Your task to perform on an android device: change the clock style Image 0: 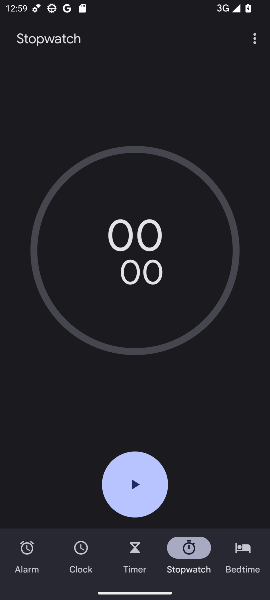
Step 0: press home button
Your task to perform on an android device: change the clock style Image 1: 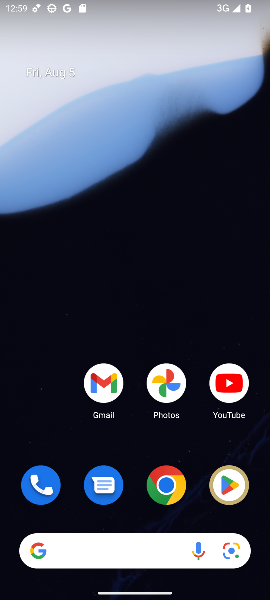
Step 1: drag from (40, 435) to (65, 23)
Your task to perform on an android device: change the clock style Image 2: 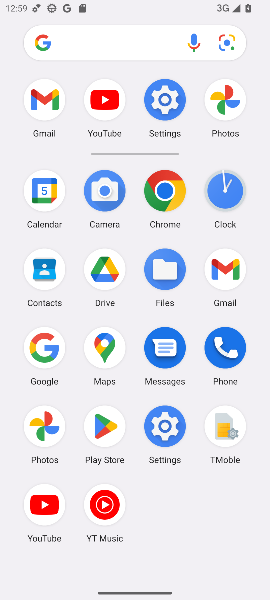
Step 2: click (228, 196)
Your task to perform on an android device: change the clock style Image 3: 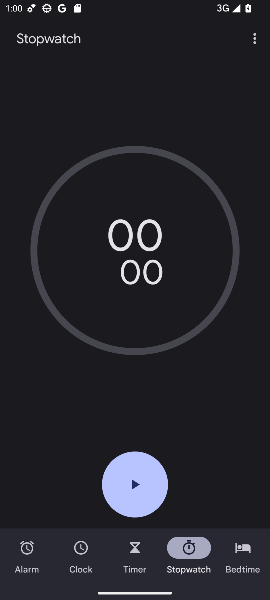
Step 3: click (254, 43)
Your task to perform on an android device: change the clock style Image 4: 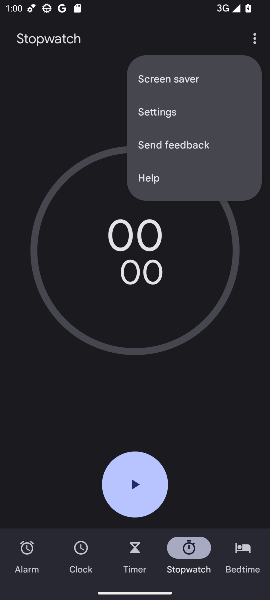
Step 4: click (162, 109)
Your task to perform on an android device: change the clock style Image 5: 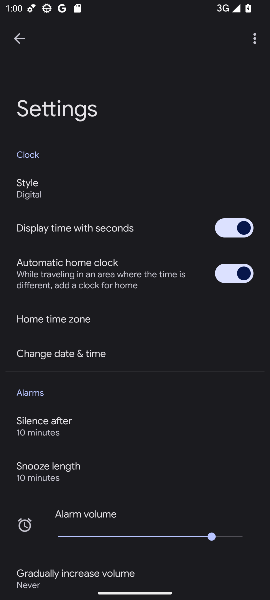
Step 5: click (33, 189)
Your task to perform on an android device: change the clock style Image 6: 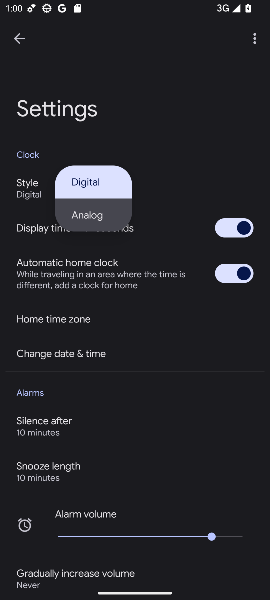
Step 6: click (92, 213)
Your task to perform on an android device: change the clock style Image 7: 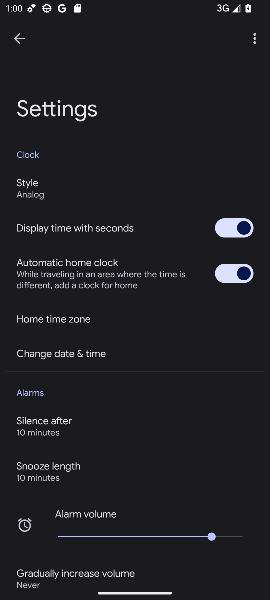
Step 7: task complete